Your task to perform on an android device: Go to ESPN.com Image 0: 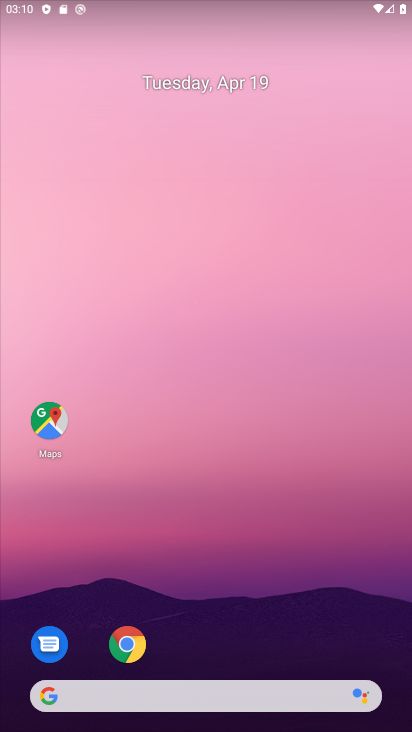
Step 0: click (123, 640)
Your task to perform on an android device: Go to ESPN.com Image 1: 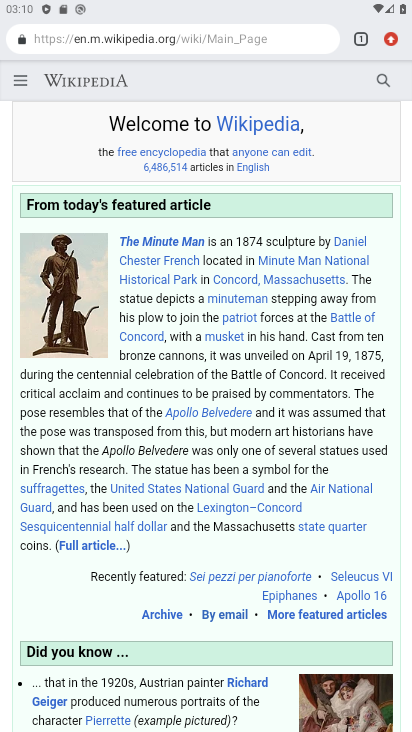
Step 1: click (104, 38)
Your task to perform on an android device: Go to ESPN.com Image 2: 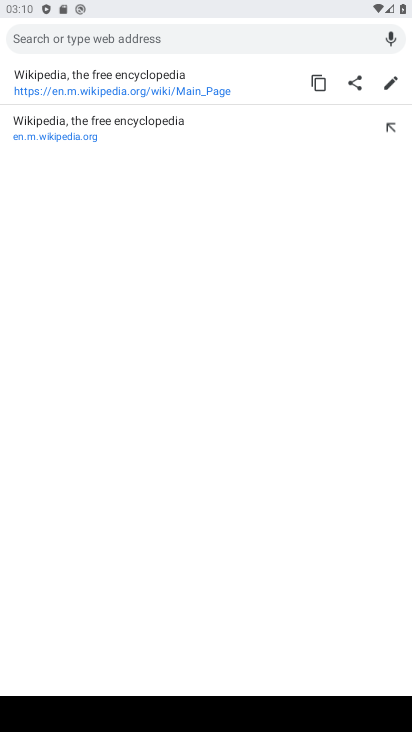
Step 2: type "espn.com"
Your task to perform on an android device: Go to ESPN.com Image 3: 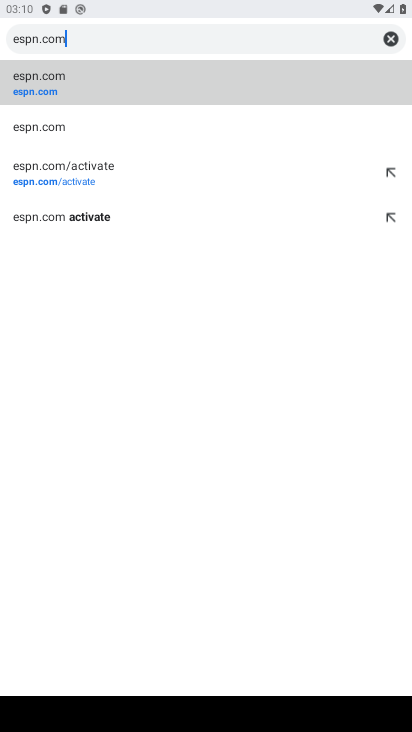
Step 3: click (32, 82)
Your task to perform on an android device: Go to ESPN.com Image 4: 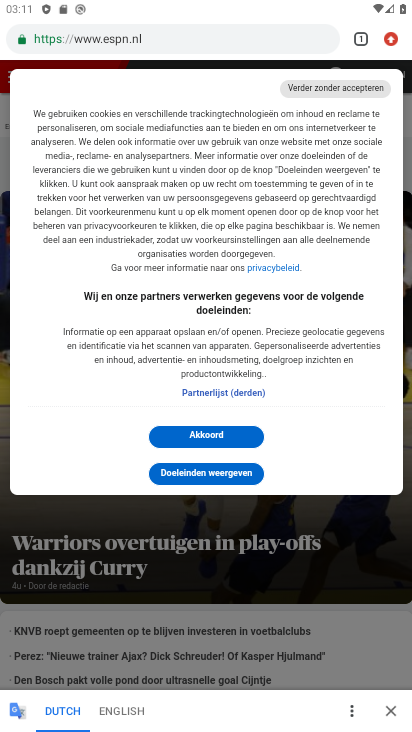
Step 4: task complete